Your task to perform on an android device: What's the weather going to be this weekend? Image 0: 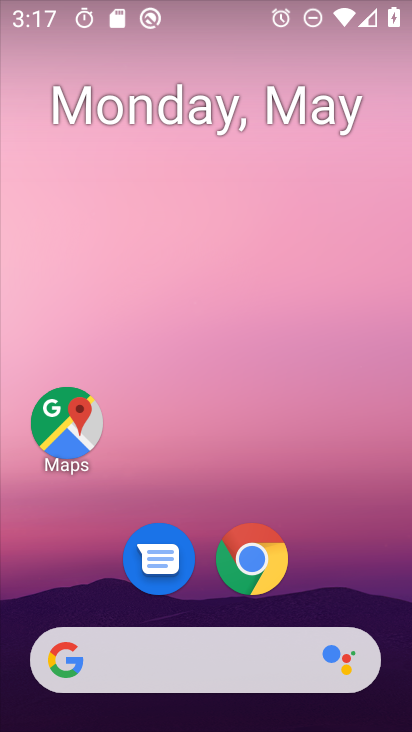
Step 0: drag from (193, 578) to (223, 173)
Your task to perform on an android device: What's the weather going to be this weekend? Image 1: 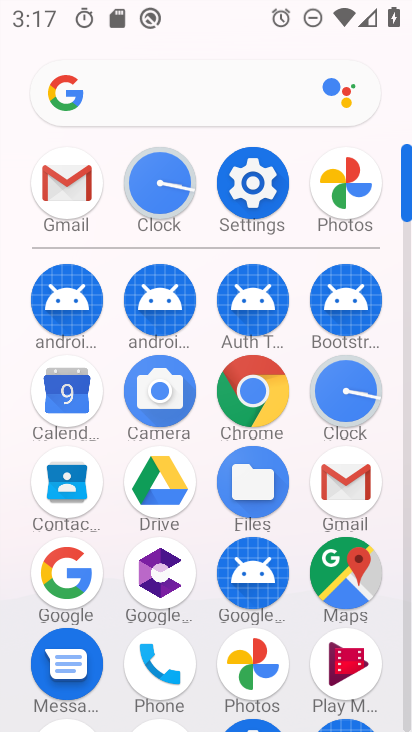
Step 1: click (220, 93)
Your task to perform on an android device: What's the weather going to be this weekend? Image 2: 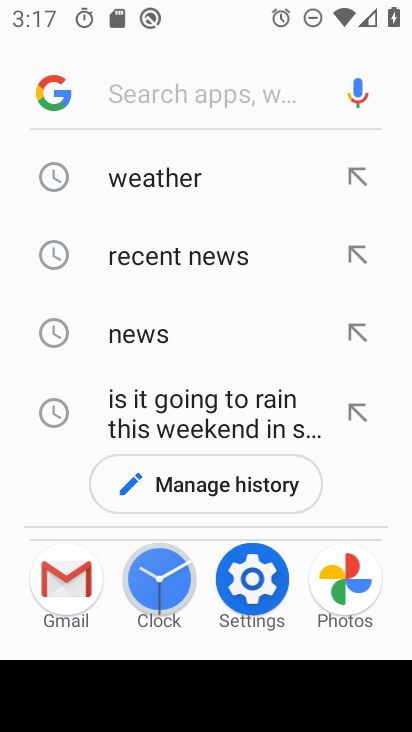
Step 2: type "what's the weather going to be this weekend"
Your task to perform on an android device: What's the weather going to be this weekend? Image 3: 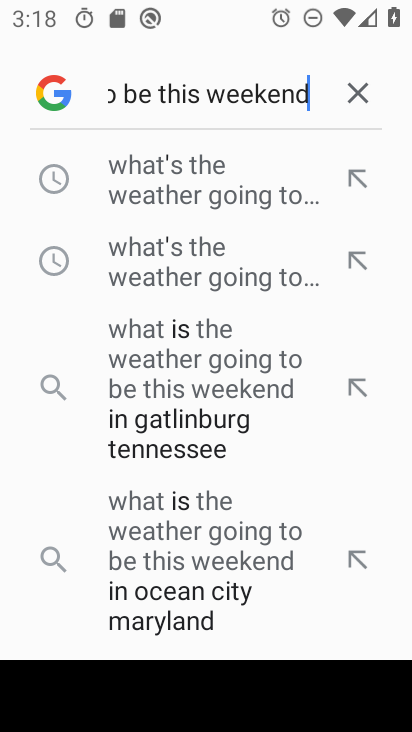
Step 3: click (165, 184)
Your task to perform on an android device: What's the weather going to be this weekend? Image 4: 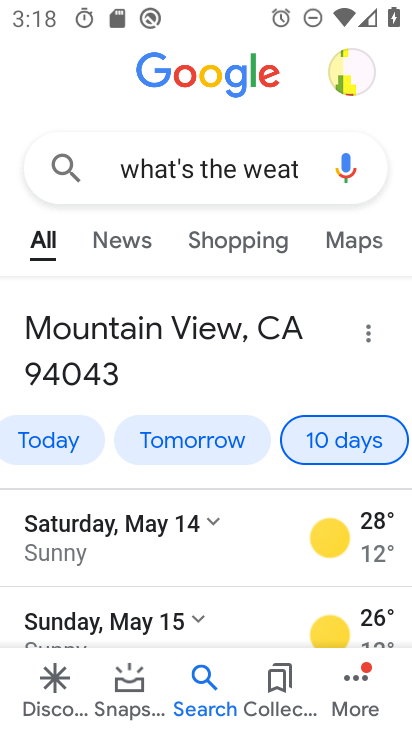
Step 4: task complete